Your task to perform on an android device: allow cookies in the chrome app Image 0: 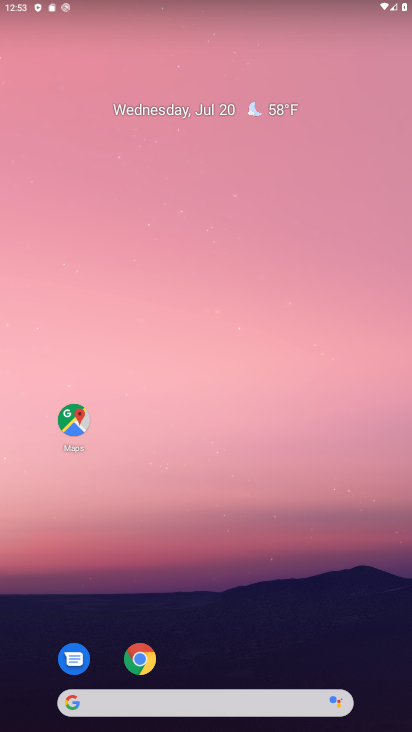
Step 0: press home button
Your task to perform on an android device: allow cookies in the chrome app Image 1: 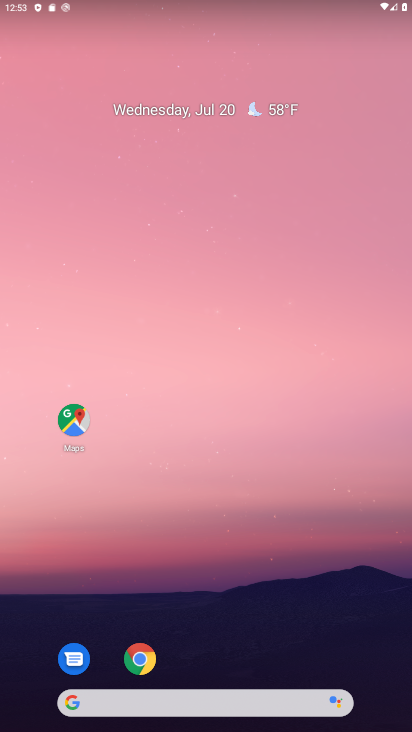
Step 1: click (139, 650)
Your task to perform on an android device: allow cookies in the chrome app Image 2: 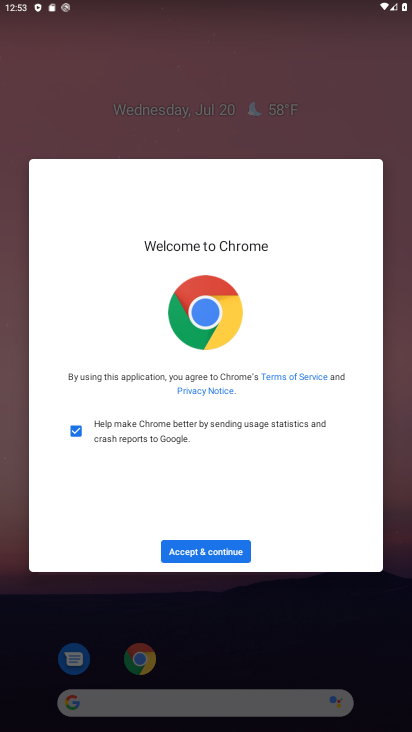
Step 2: click (216, 549)
Your task to perform on an android device: allow cookies in the chrome app Image 3: 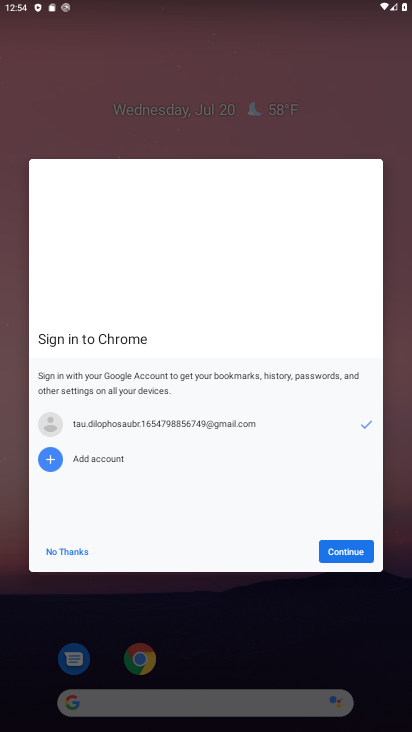
Step 3: click (337, 545)
Your task to perform on an android device: allow cookies in the chrome app Image 4: 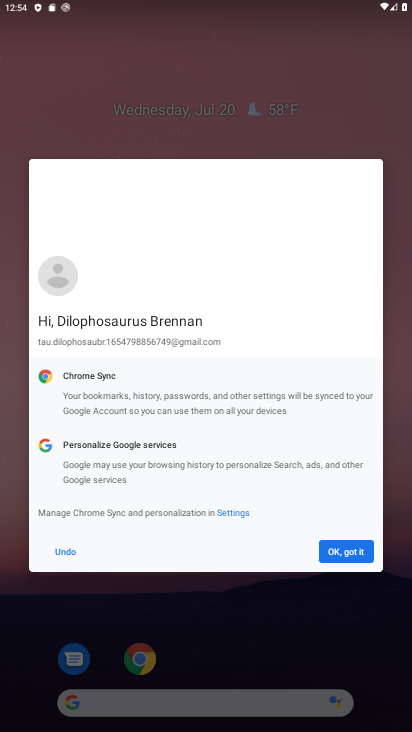
Step 4: click (354, 549)
Your task to perform on an android device: allow cookies in the chrome app Image 5: 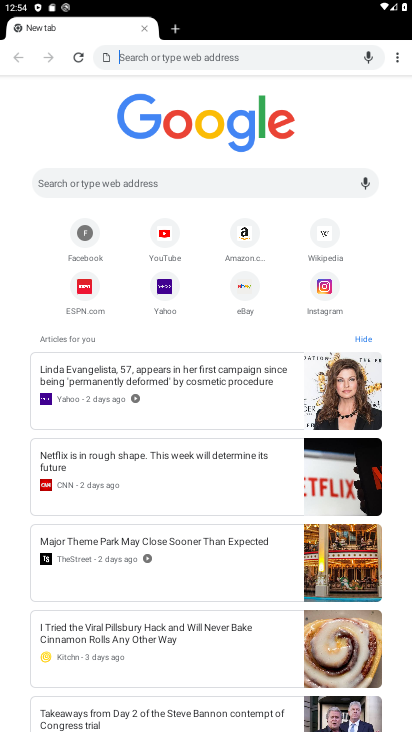
Step 5: click (393, 56)
Your task to perform on an android device: allow cookies in the chrome app Image 6: 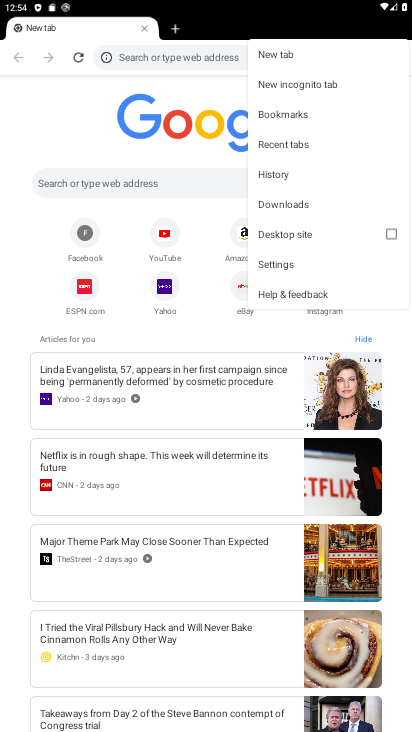
Step 6: click (309, 259)
Your task to perform on an android device: allow cookies in the chrome app Image 7: 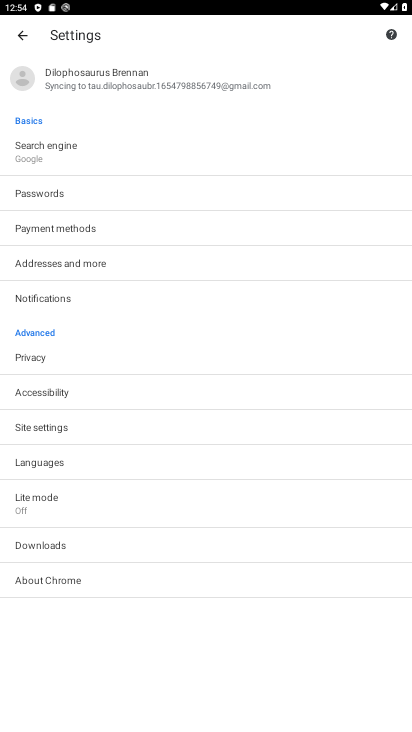
Step 7: click (39, 360)
Your task to perform on an android device: allow cookies in the chrome app Image 8: 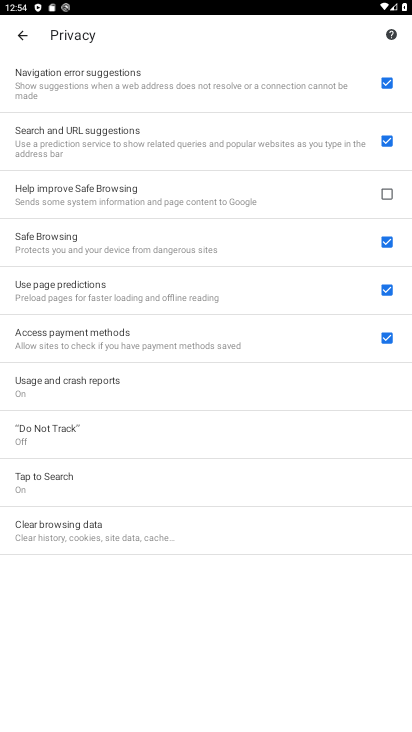
Step 8: click (147, 524)
Your task to perform on an android device: allow cookies in the chrome app Image 9: 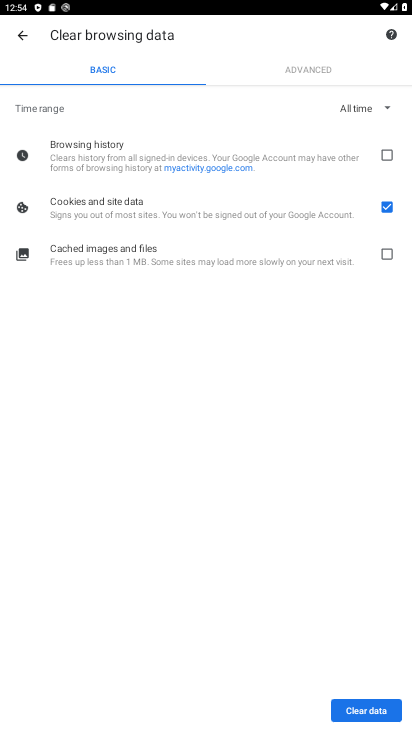
Step 9: click (378, 710)
Your task to perform on an android device: allow cookies in the chrome app Image 10: 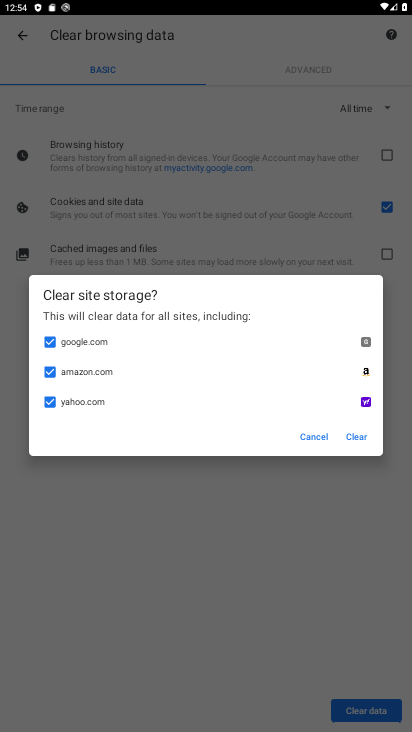
Step 10: click (348, 429)
Your task to perform on an android device: allow cookies in the chrome app Image 11: 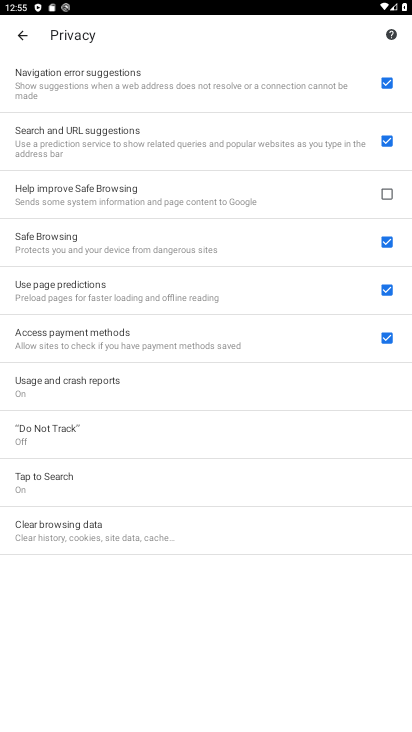
Step 11: task complete